Your task to perform on an android device: turn on sleep mode Image 0: 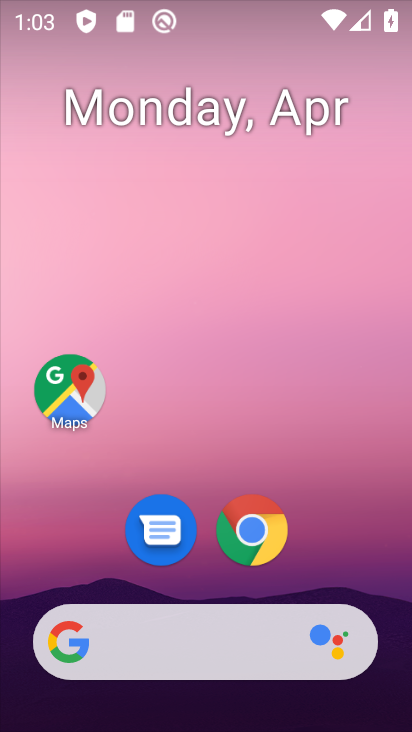
Step 0: drag from (207, 430) to (276, 20)
Your task to perform on an android device: turn on sleep mode Image 1: 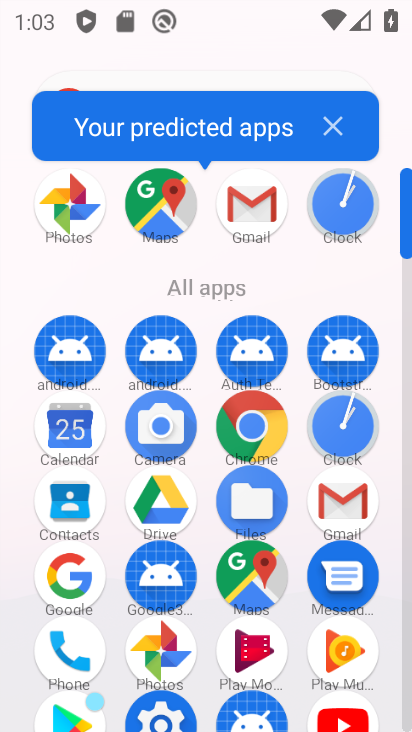
Step 1: drag from (281, 670) to (293, 339)
Your task to perform on an android device: turn on sleep mode Image 2: 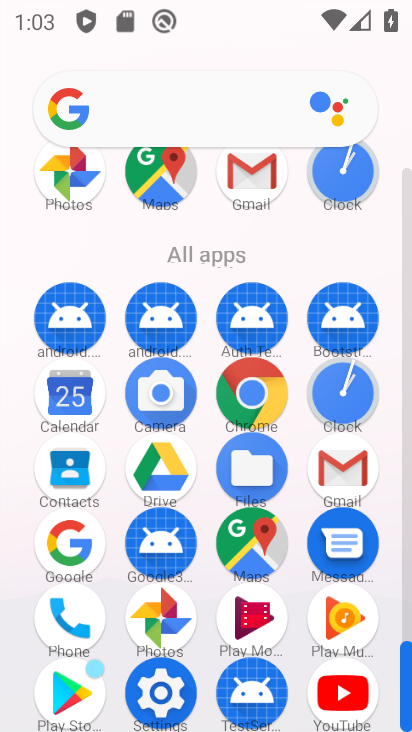
Step 2: click (159, 697)
Your task to perform on an android device: turn on sleep mode Image 3: 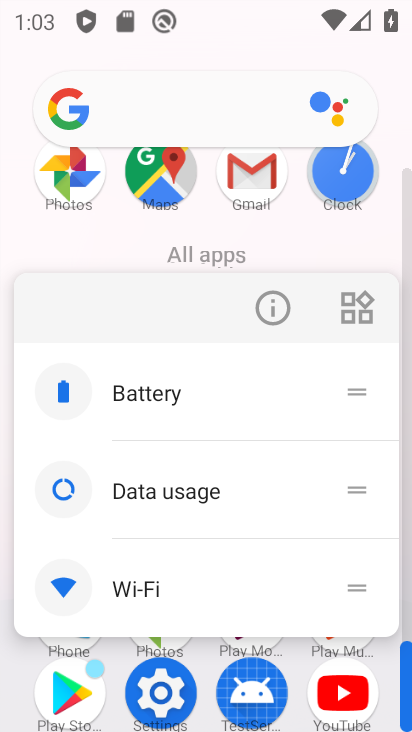
Step 3: click (156, 686)
Your task to perform on an android device: turn on sleep mode Image 4: 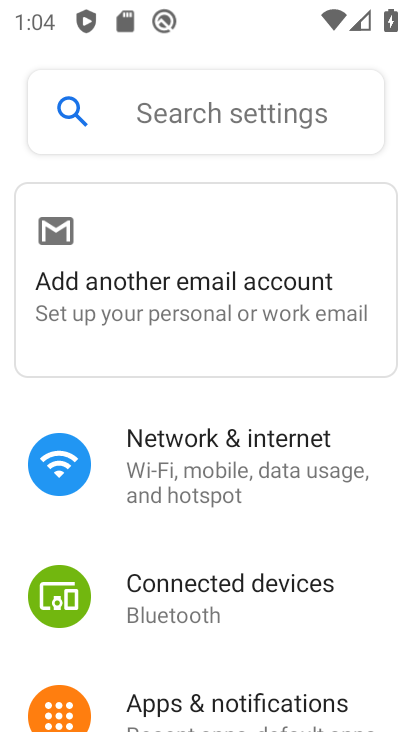
Step 4: drag from (217, 668) to (220, 448)
Your task to perform on an android device: turn on sleep mode Image 5: 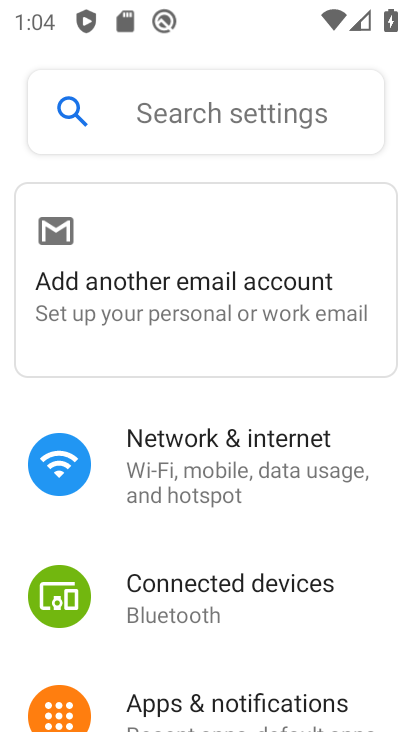
Step 5: drag from (200, 613) to (202, 445)
Your task to perform on an android device: turn on sleep mode Image 6: 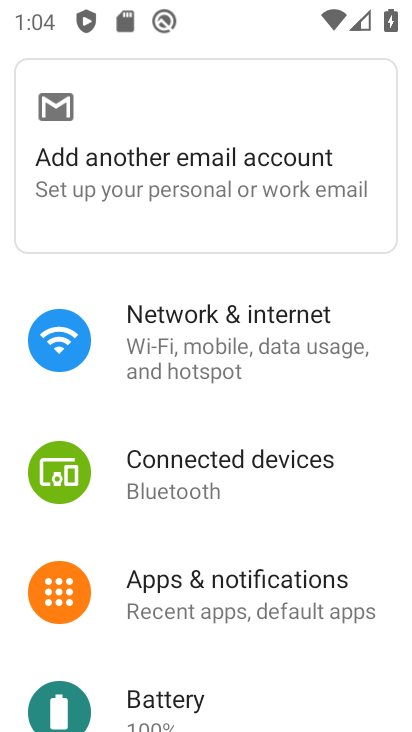
Step 6: click (209, 570)
Your task to perform on an android device: turn on sleep mode Image 7: 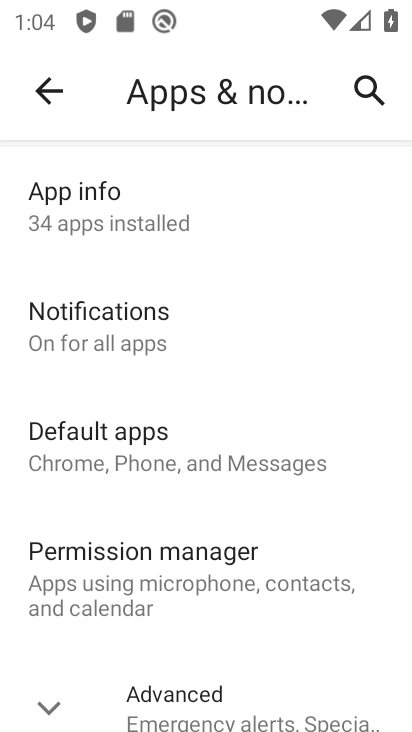
Step 7: task complete